Your task to perform on an android device: Open maps Image 0: 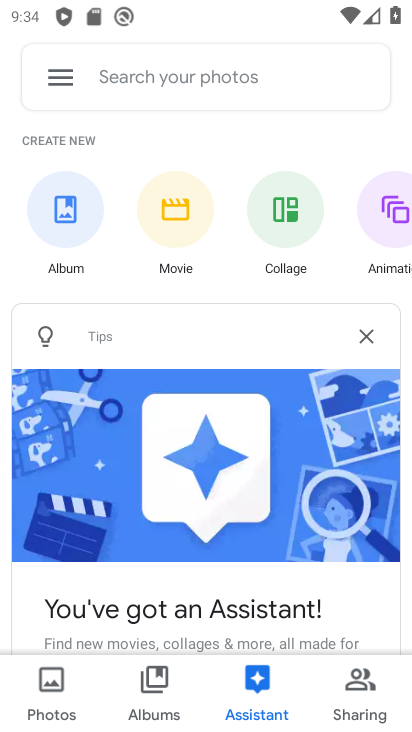
Step 0: press home button
Your task to perform on an android device: Open maps Image 1: 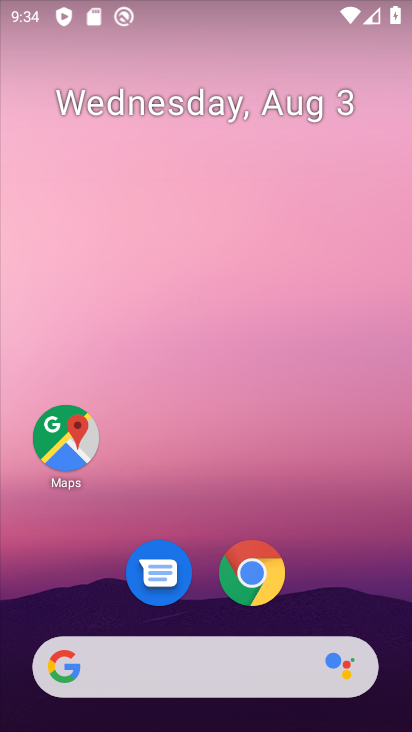
Step 1: click (65, 436)
Your task to perform on an android device: Open maps Image 2: 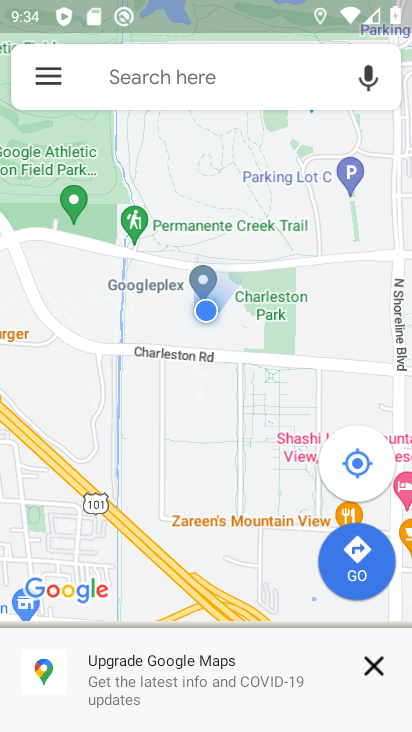
Step 2: task complete